Your task to perform on an android device: Search for flights from Buenos aires to Seoul Image 0: 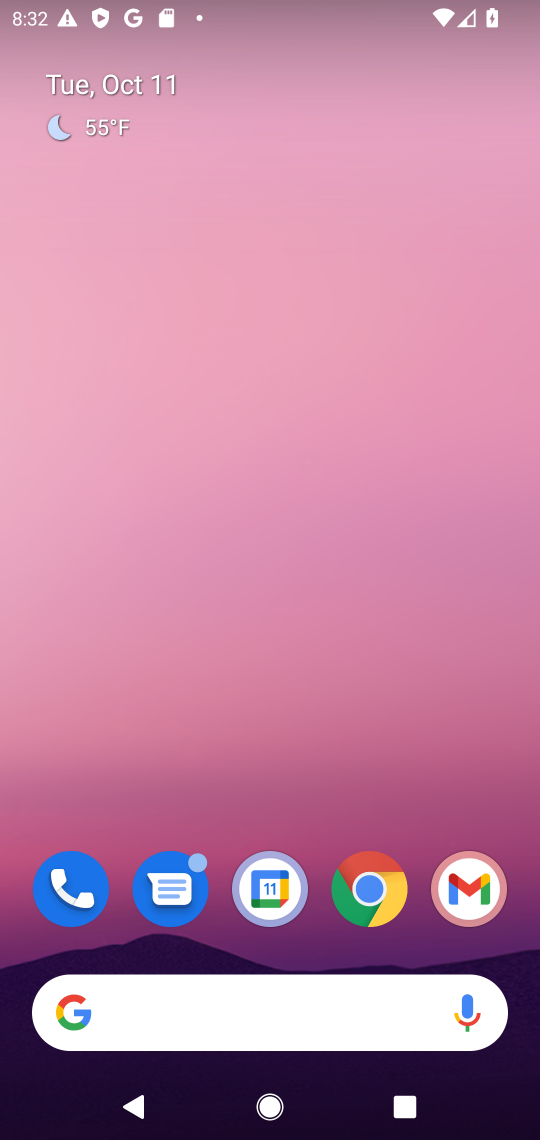
Step 0: click (239, 1008)
Your task to perform on an android device: Search for flights from Buenos aires to Seoul Image 1: 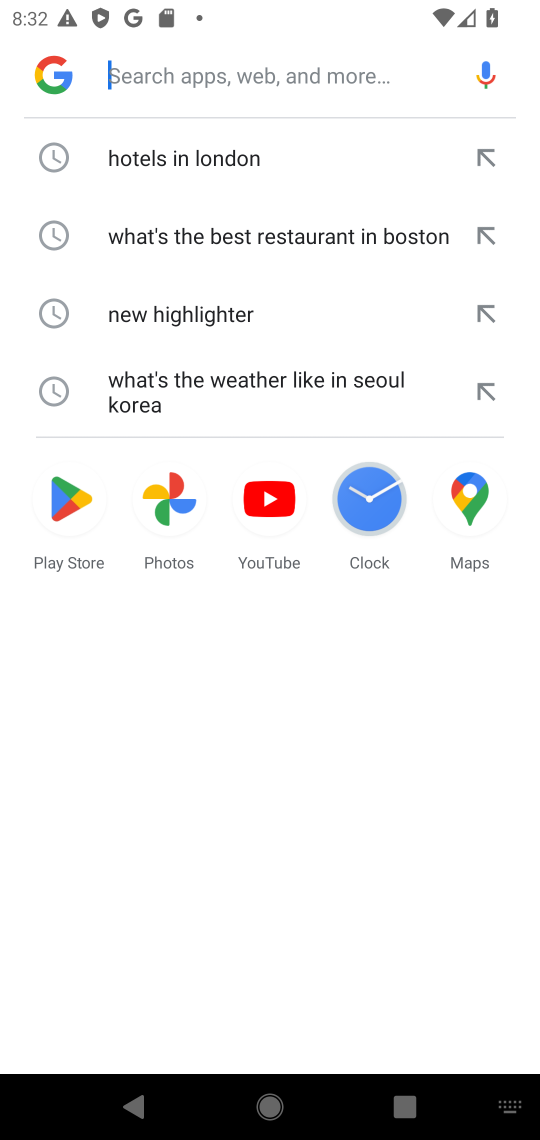
Step 1: click (178, 82)
Your task to perform on an android device: Search for flights from Buenos aires to Seoul Image 2: 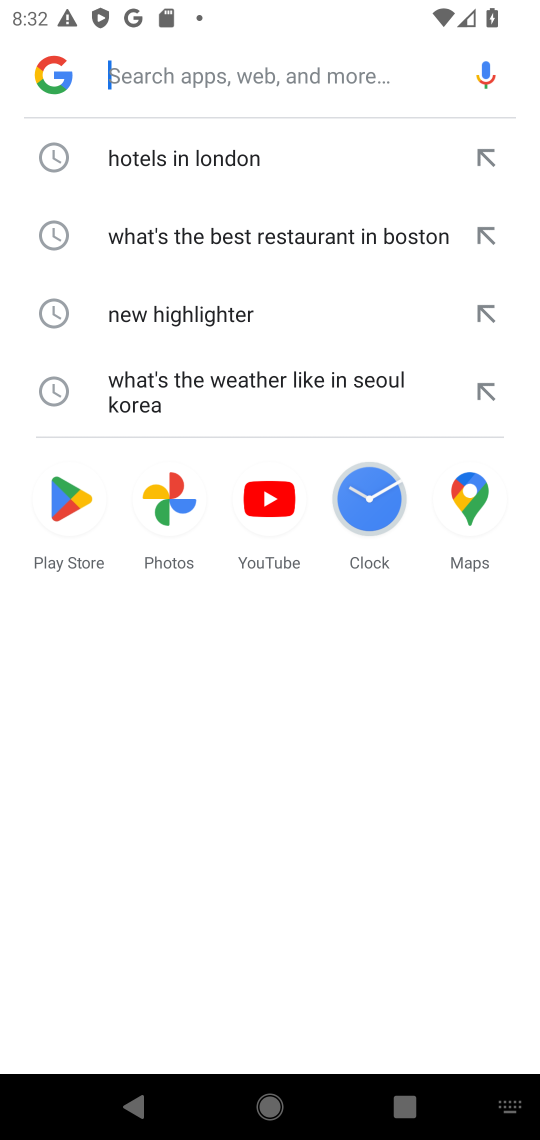
Step 2: type "flights from Buenos aires to Seoul"
Your task to perform on an android device: Search for flights from Buenos aires to Seoul Image 3: 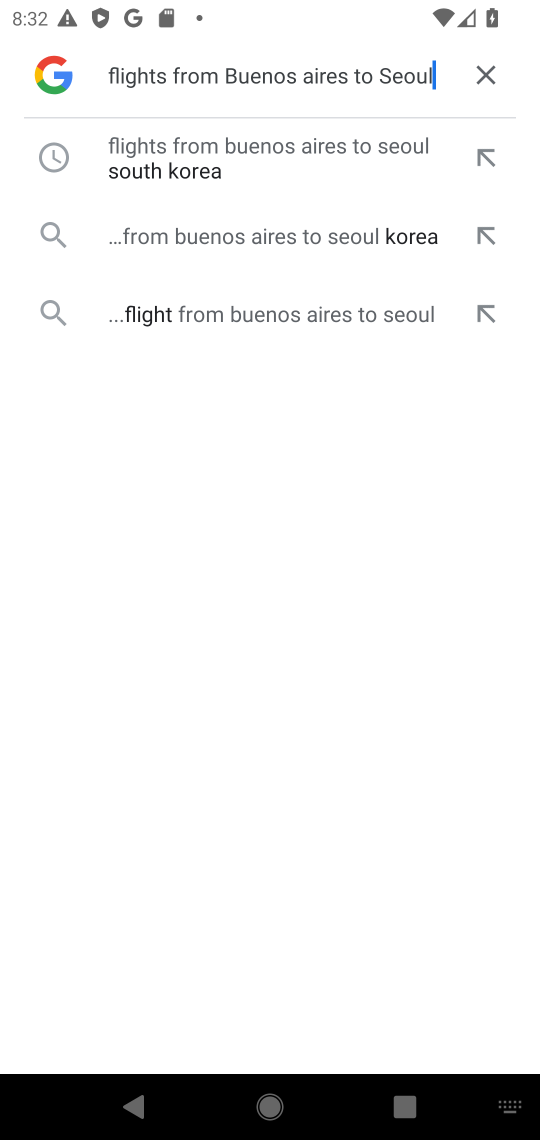
Step 3: click (256, 152)
Your task to perform on an android device: Search for flights from Buenos aires to Seoul Image 4: 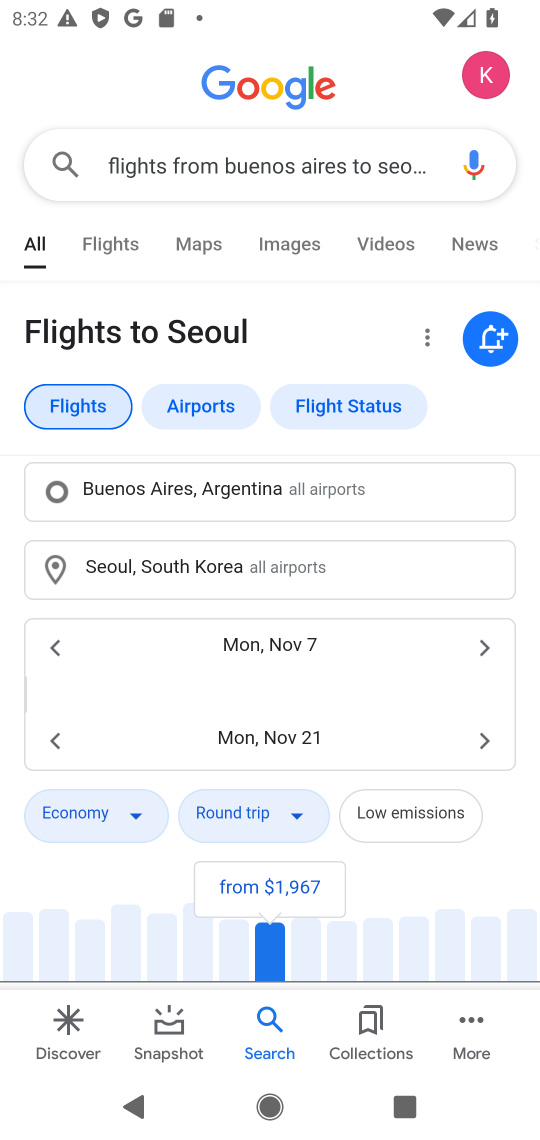
Step 4: task complete